Your task to perform on an android device: show emergency info Image 0: 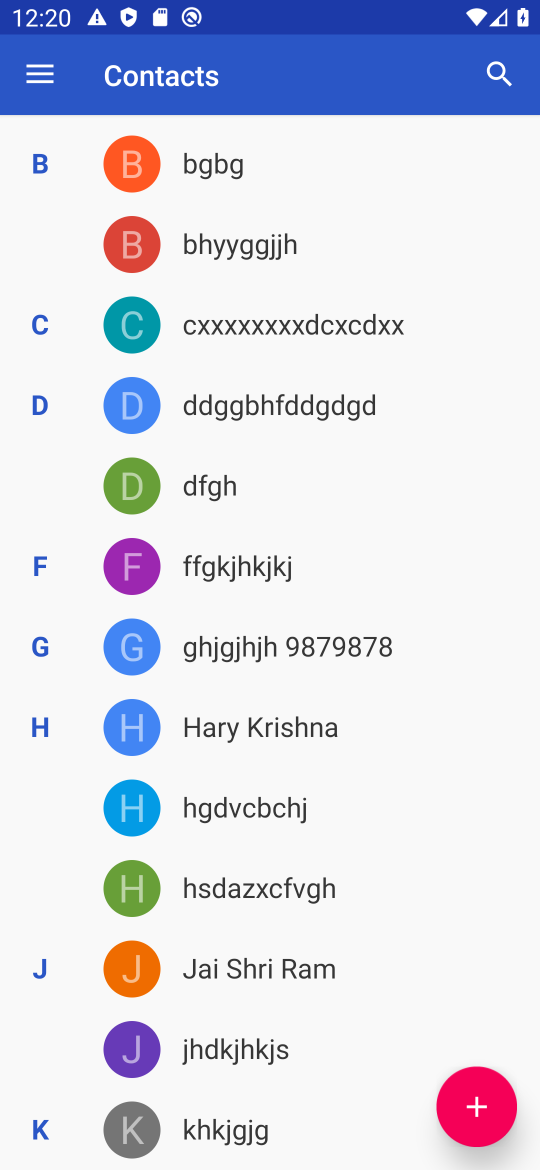
Step 0: press home button
Your task to perform on an android device: show emergency info Image 1: 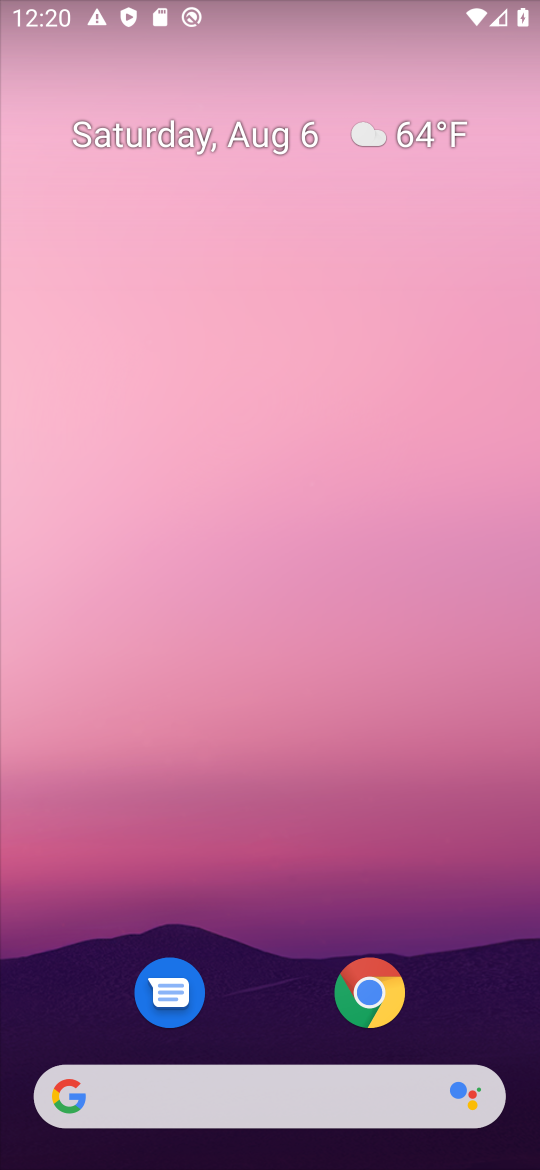
Step 1: drag from (326, 969) to (457, 79)
Your task to perform on an android device: show emergency info Image 2: 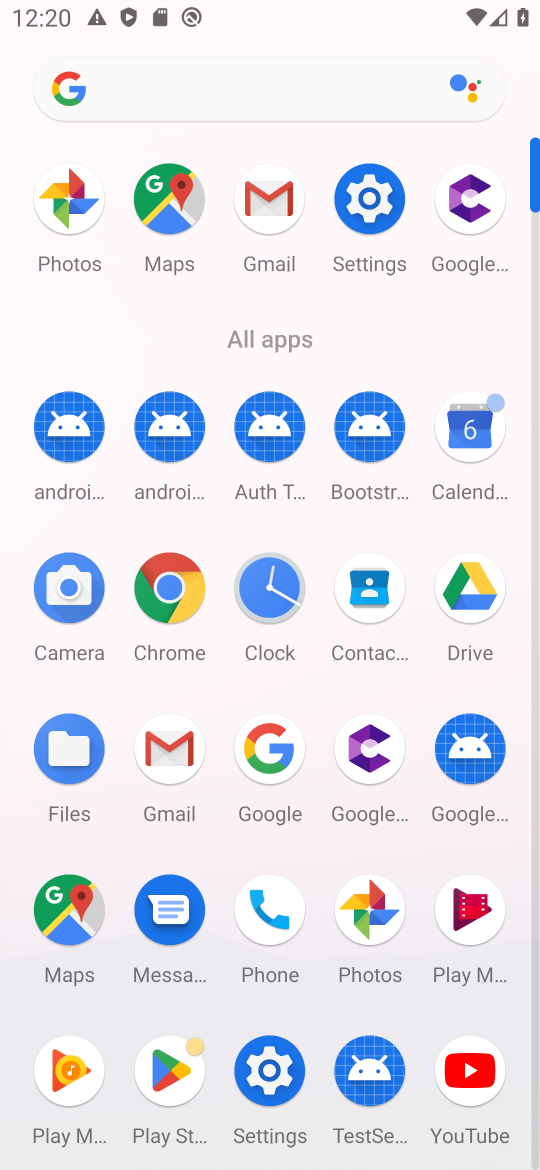
Step 2: click (370, 196)
Your task to perform on an android device: show emergency info Image 3: 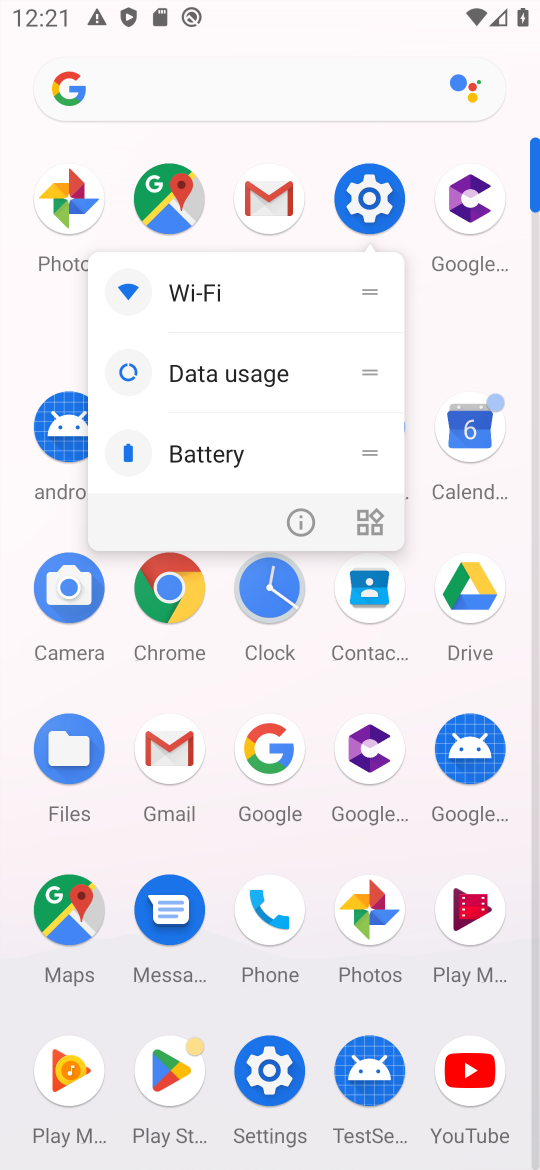
Step 3: click (380, 185)
Your task to perform on an android device: show emergency info Image 4: 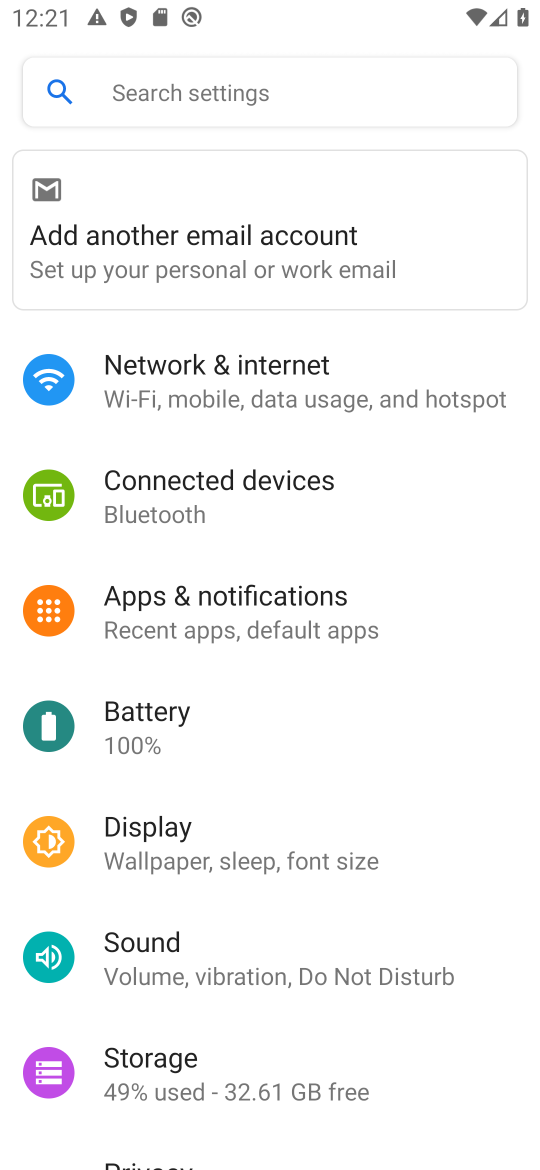
Step 4: drag from (274, 1009) to (532, 97)
Your task to perform on an android device: show emergency info Image 5: 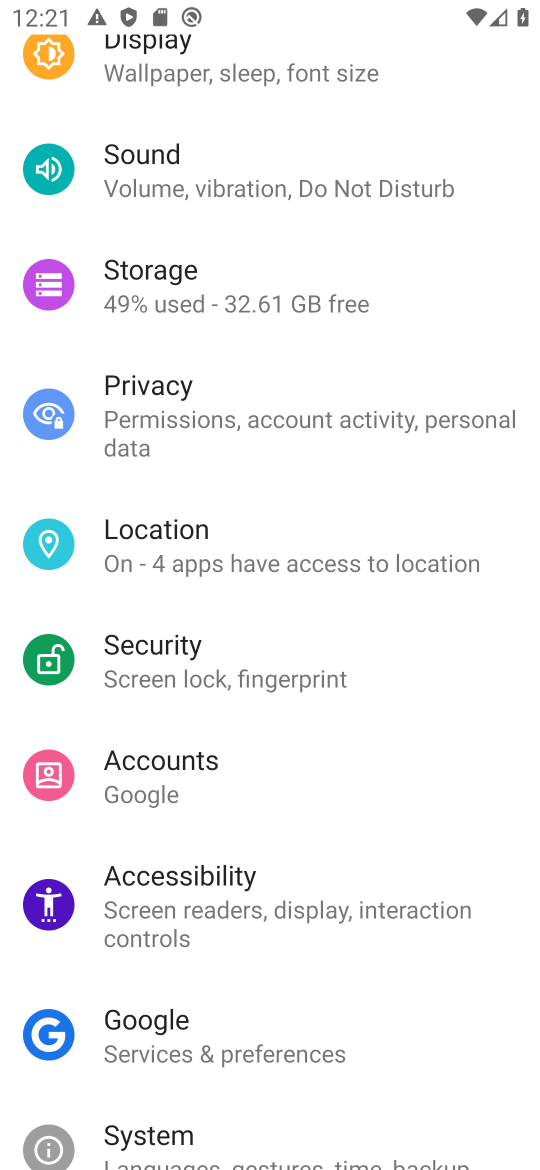
Step 5: drag from (286, 1054) to (429, 124)
Your task to perform on an android device: show emergency info Image 6: 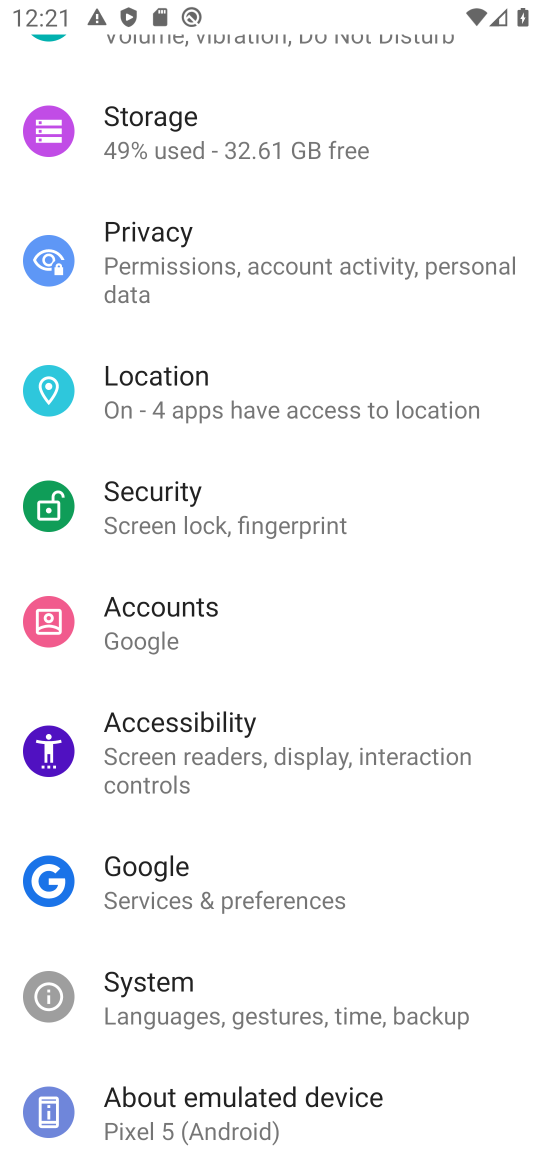
Step 6: click (237, 1102)
Your task to perform on an android device: show emergency info Image 7: 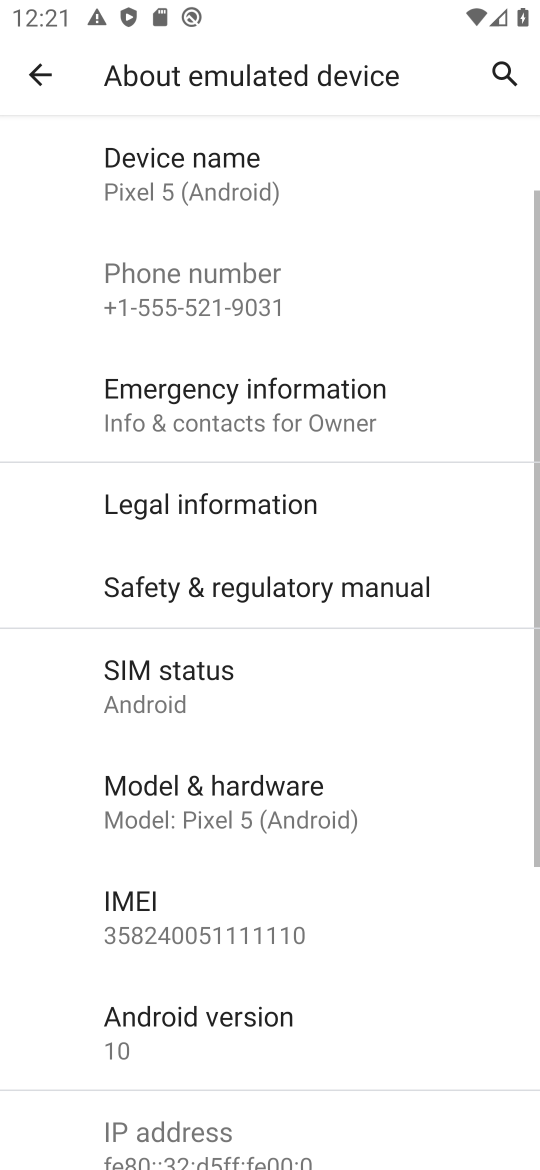
Step 7: click (297, 390)
Your task to perform on an android device: show emergency info Image 8: 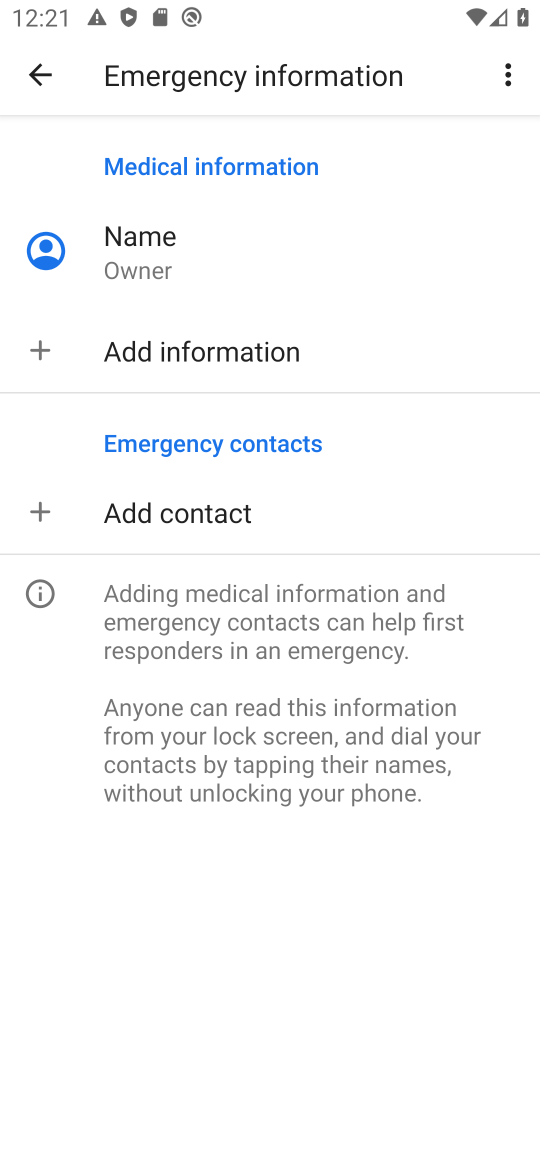
Step 8: task complete